Your task to perform on an android device: toggle pop-ups in chrome Image 0: 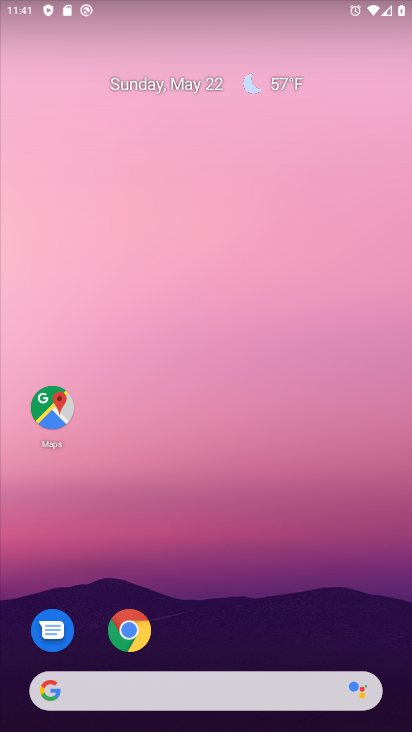
Step 0: click (130, 634)
Your task to perform on an android device: toggle pop-ups in chrome Image 1: 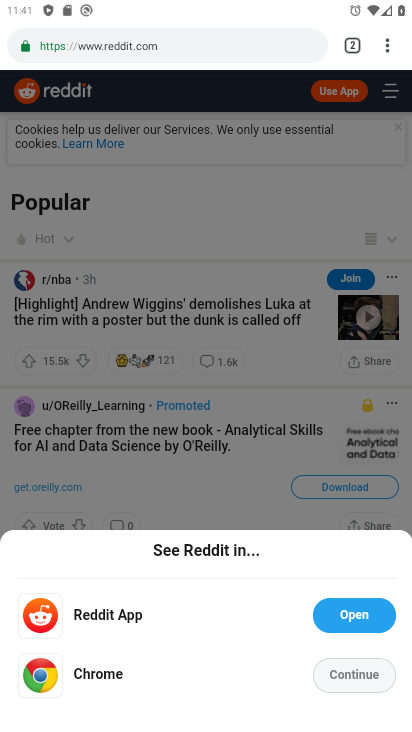
Step 1: click (385, 48)
Your task to perform on an android device: toggle pop-ups in chrome Image 2: 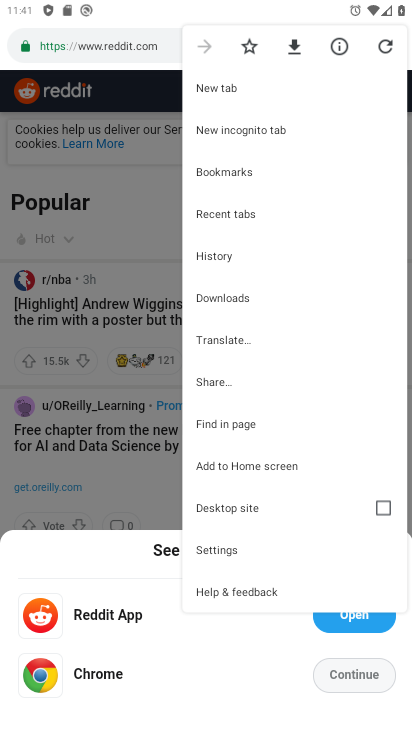
Step 2: click (256, 550)
Your task to perform on an android device: toggle pop-ups in chrome Image 3: 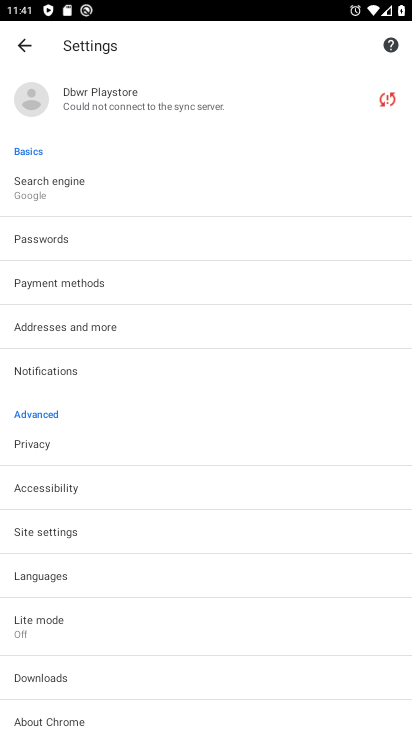
Step 3: drag from (148, 612) to (160, 219)
Your task to perform on an android device: toggle pop-ups in chrome Image 4: 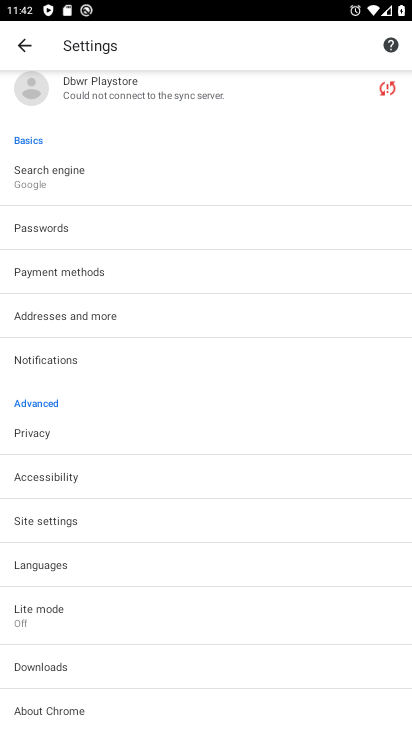
Step 4: click (100, 530)
Your task to perform on an android device: toggle pop-ups in chrome Image 5: 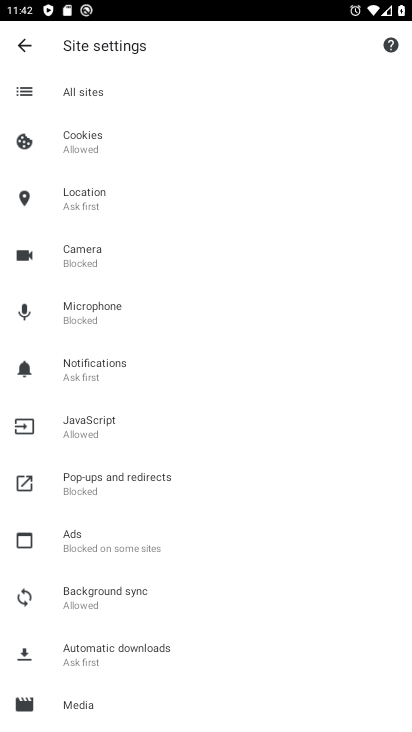
Step 5: click (133, 471)
Your task to perform on an android device: toggle pop-ups in chrome Image 6: 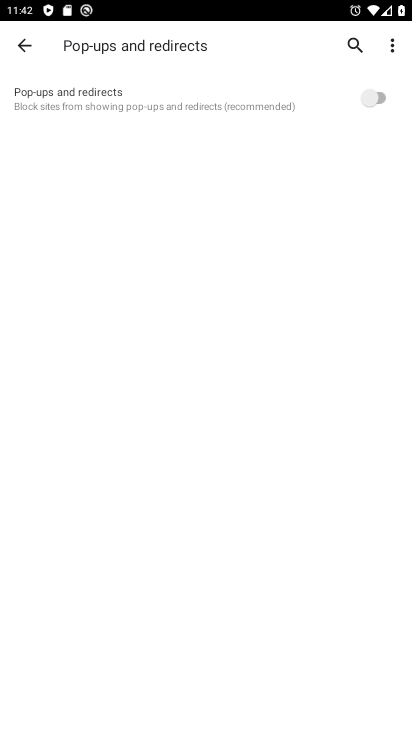
Step 6: click (367, 92)
Your task to perform on an android device: toggle pop-ups in chrome Image 7: 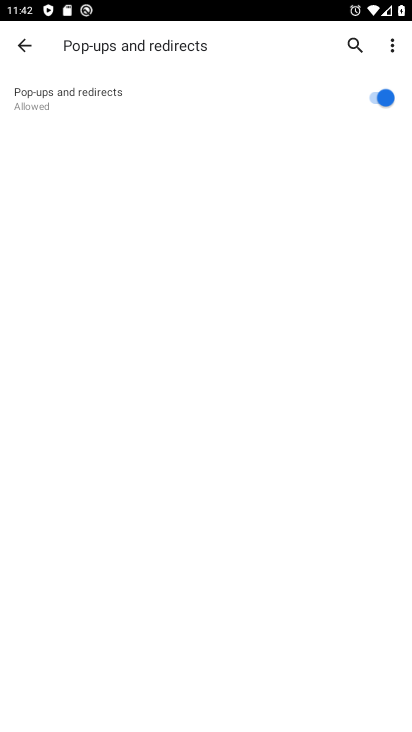
Step 7: task complete